Your task to perform on an android device: Open Google Chrome and open the bookmarks view Image 0: 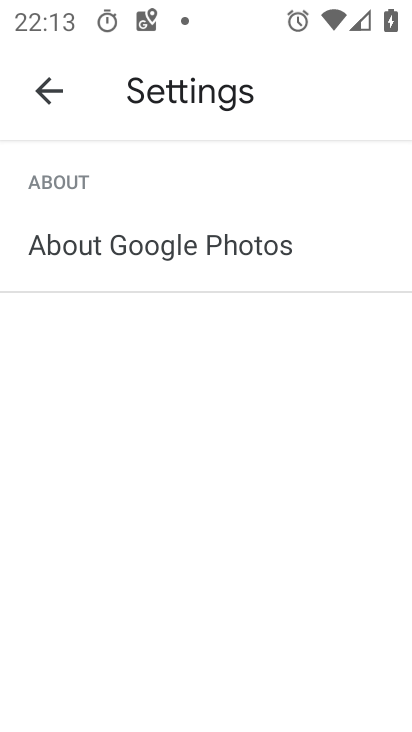
Step 0: press home button
Your task to perform on an android device: Open Google Chrome and open the bookmarks view Image 1: 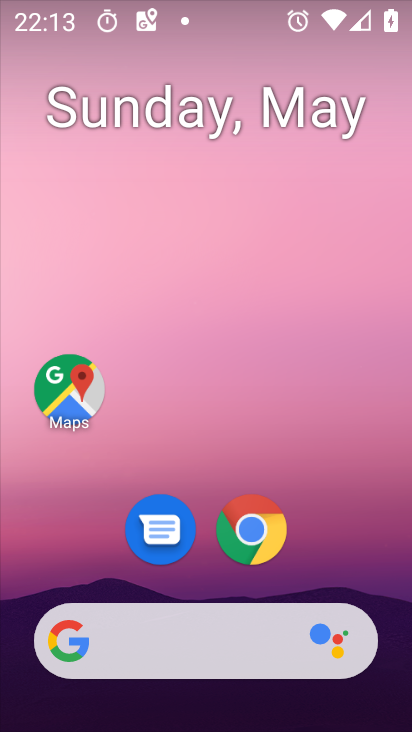
Step 1: click (254, 534)
Your task to perform on an android device: Open Google Chrome and open the bookmarks view Image 2: 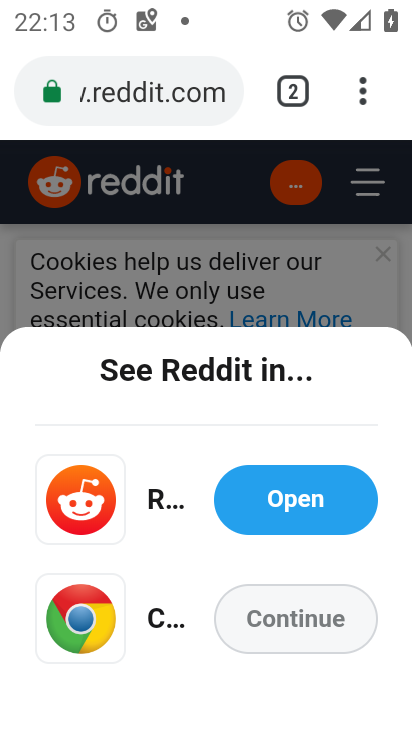
Step 2: click (364, 94)
Your task to perform on an android device: Open Google Chrome and open the bookmarks view Image 3: 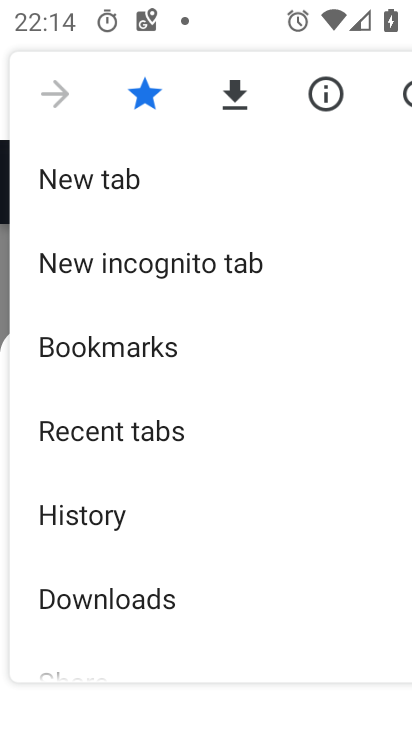
Step 3: click (112, 354)
Your task to perform on an android device: Open Google Chrome and open the bookmarks view Image 4: 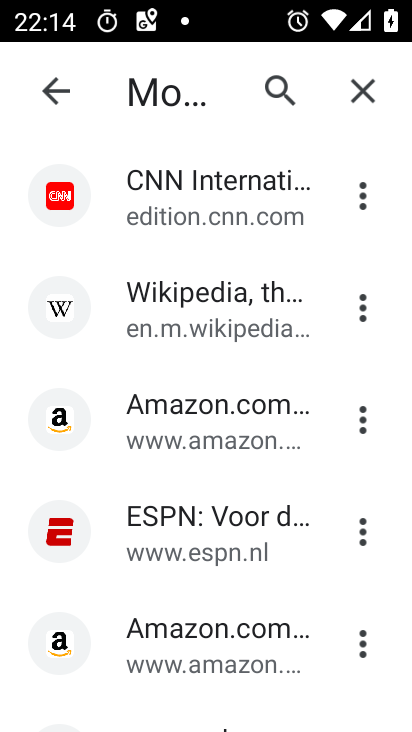
Step 4: task complete